Your task to perform on an android device: delete a single message in the gmail app Image 0: 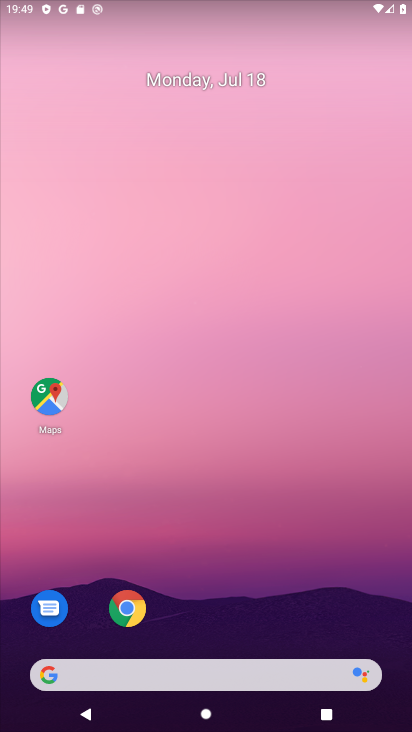
Step 0: drag from (205, 572) to (127, 24)
Your task to perform on an android device: delete a single message in the gmail app Image 1: 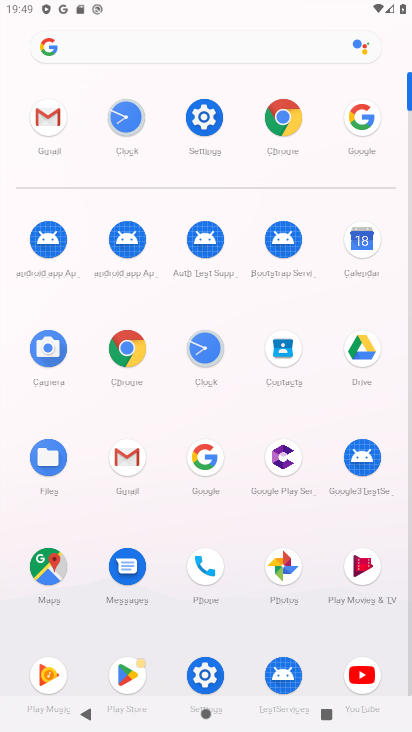
Step 1: click (49, 121)
Your task to perform on an android device: delete a single message in the gmail app Image 2: 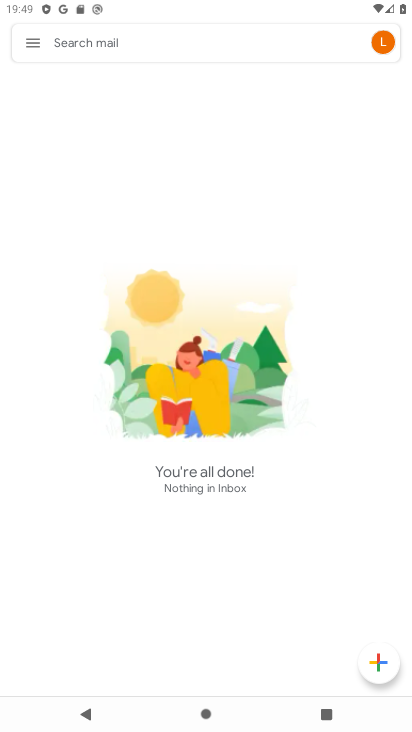
Step 2: click (26, 39)
Your task to perform on an android device: delete a single message in the gmail app Image 3: 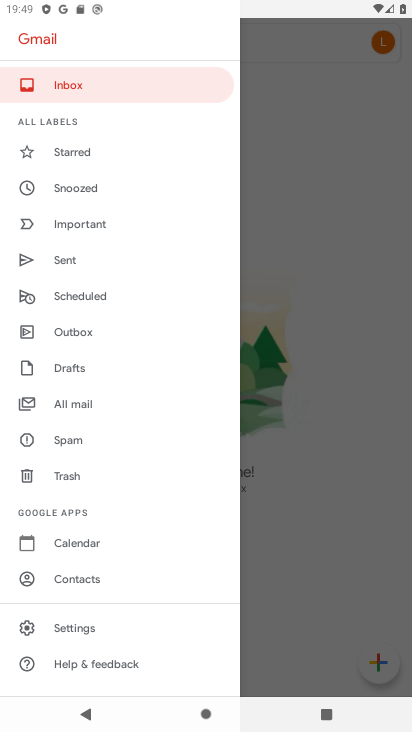
Step 3: click (66, 398)
Your task to perform on an android device: delete a single message in the gmail app Image 4: 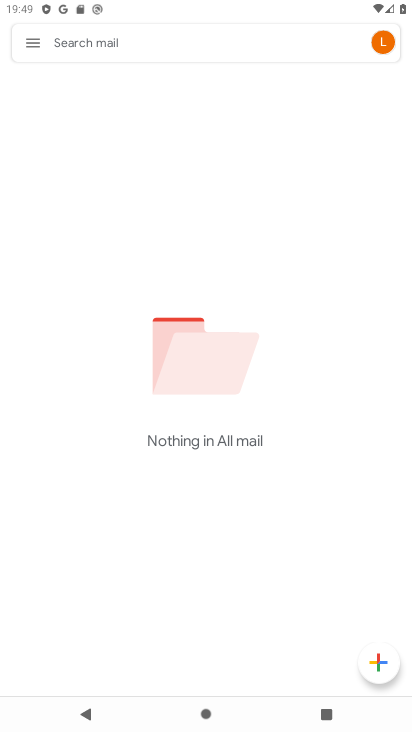
Step 4: task complete